Your task to perform on an android device: open the mobile data screen to see how much data has been used Image 0: 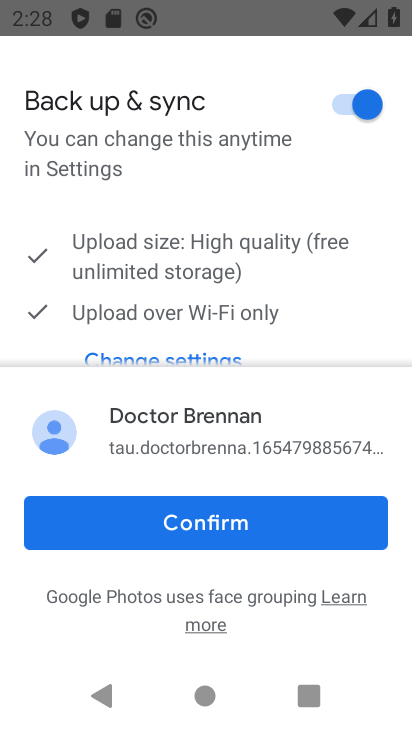
Step 0: press back button
Your task to perform on an android device: open the mobile data screen to see how much data has been used Image 1: 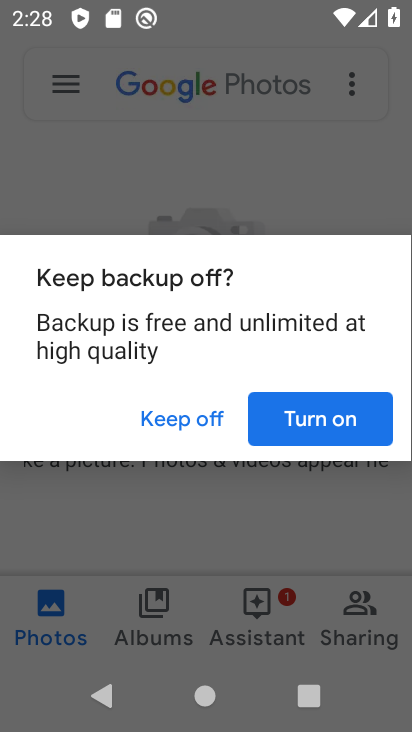
Step 1: press home button
Your task to perform on an android device: open the mobile data screen to see how much data has been used Image 2: 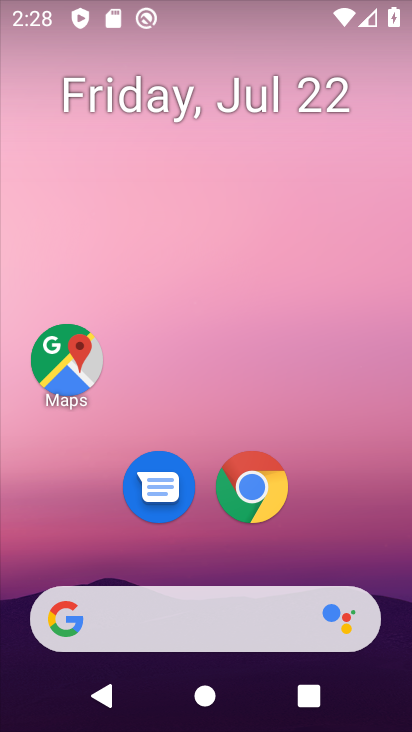
Step 2: drag from (181, 567) to (245, 14)
Your task to perform on an android device: open the mobile data screen to see how much data has been used Image 3: 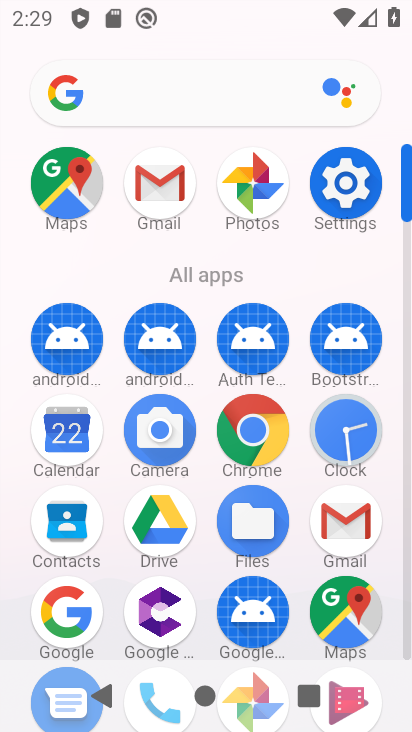
Step 3: click (335, 173)
Your task to perform on an android device: open the mobile data screen to see how much data has been used Image 4: 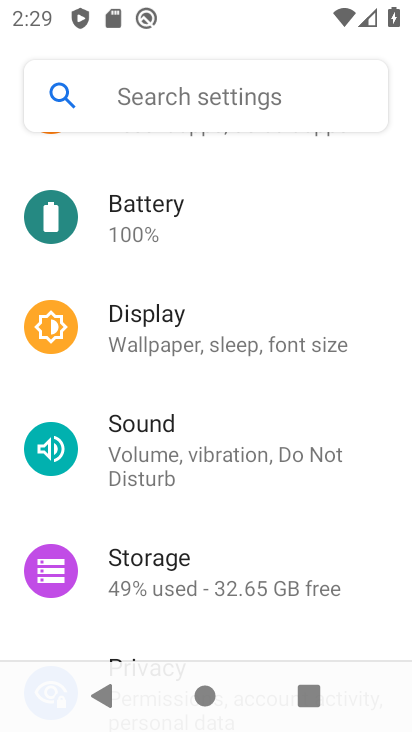
Step 4: drag from (269, 218) to (192, 726)
Your task to perform on an android device: open the mobile data screen to see how much data has been used Image 5: 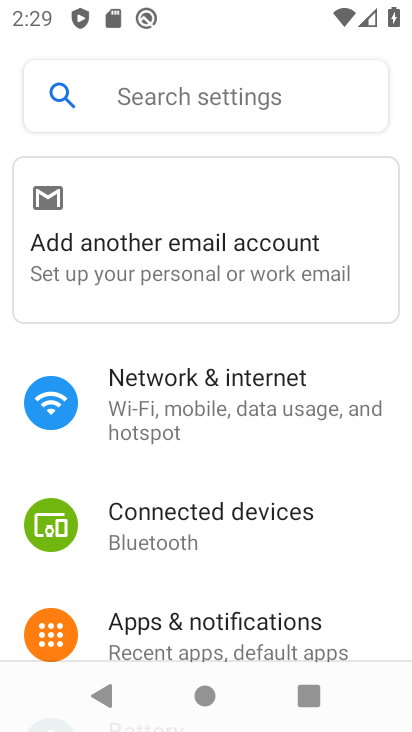
Step 5: click (199, 397)
Your task to perform on an android device: open the mobile data screen to see how much data has been used Image 6: 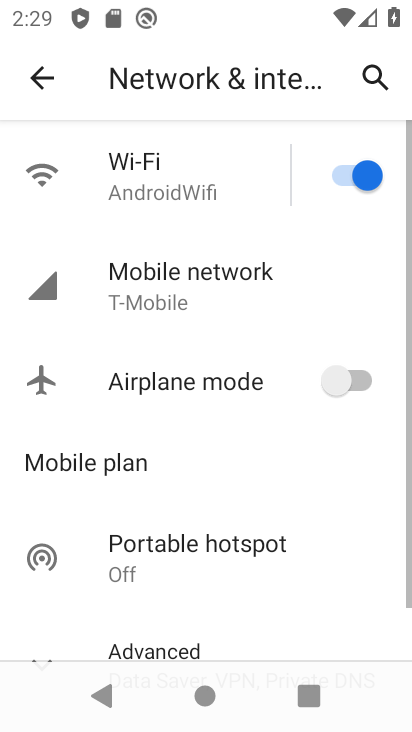
Step 6: click (132, 272)
Your task to perform on an android device: open the mobile data screen to see how much data has been used Image 7: 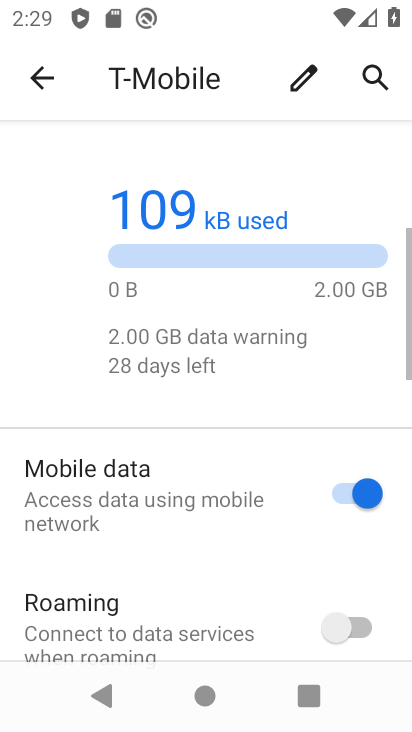
Step 7: drag from (149, 609) to (208, 171)
Your task to perform on an android device: open the mobile data screen to see how much data has been used Image 8: 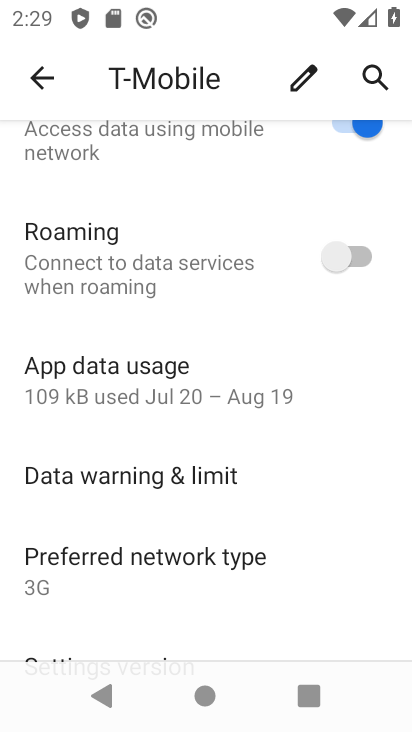
Step 8: click (136, 370)
Your task to perform on an android device: open the mobile data screen to see how much data has been used Image 9: 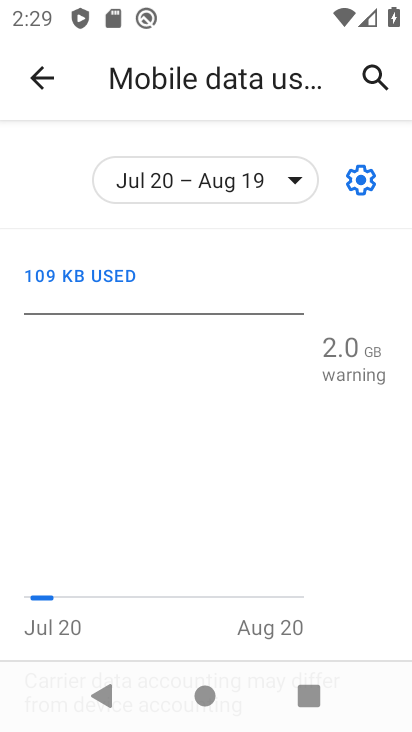
Step 9: task complete